Your task to perform on an android device: turn off location history Image 0: 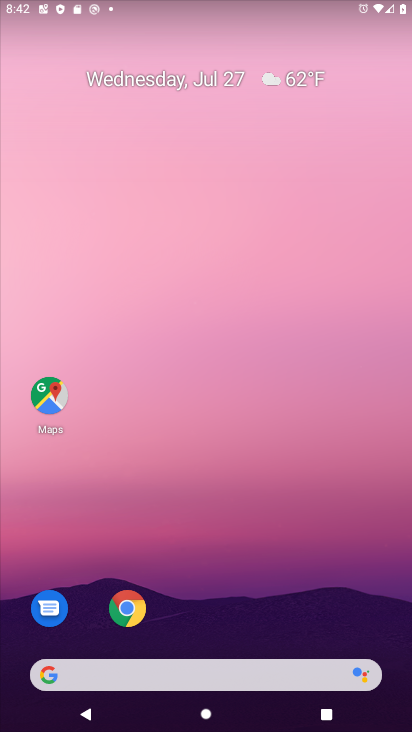
Step 0: drag from (226, 613) to (195, 156)
Your task to perform on an android device: turn off location history Image 1: 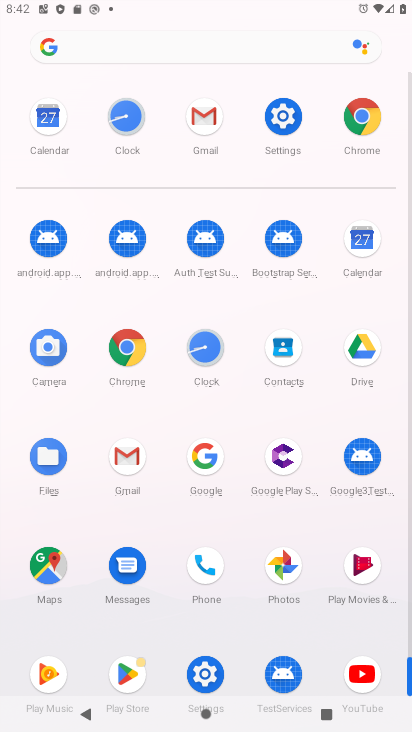
Step 1: click (199, 671)
Your task to perform on an android device: turn off location history Image 2: 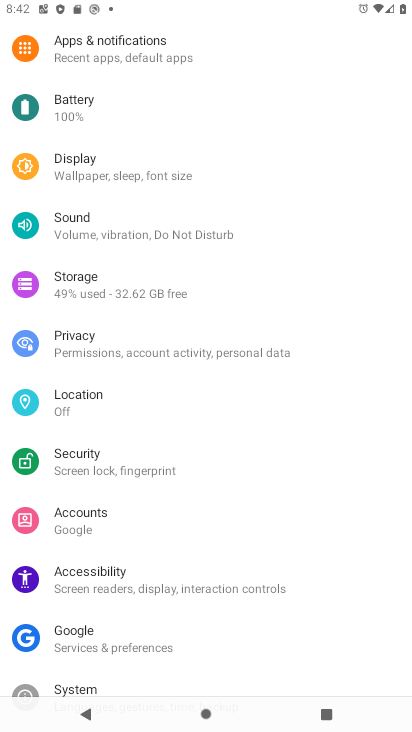
Step 2: click (92, 406)
Your task to perform on an android device: turn off location history Image 3: 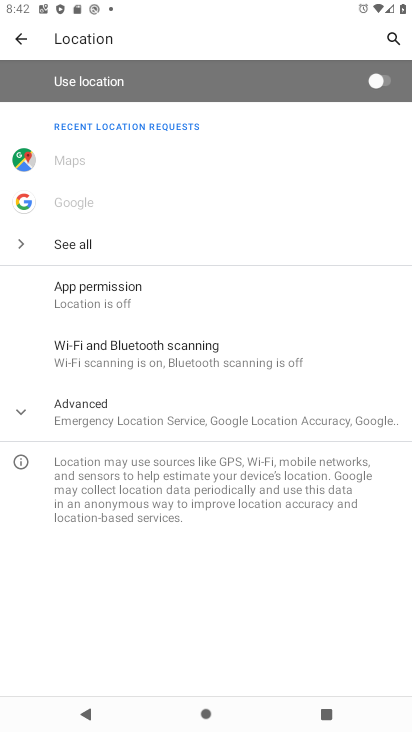
Step 3: task complete